Your task to perform on an android device: set the stopwatch Image 0: 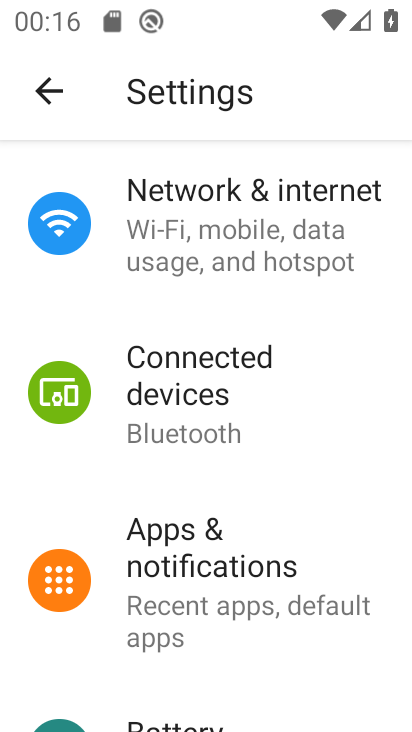
Step 0: press home button
Your task to perform on an android device: set the stopwatch Image 1: 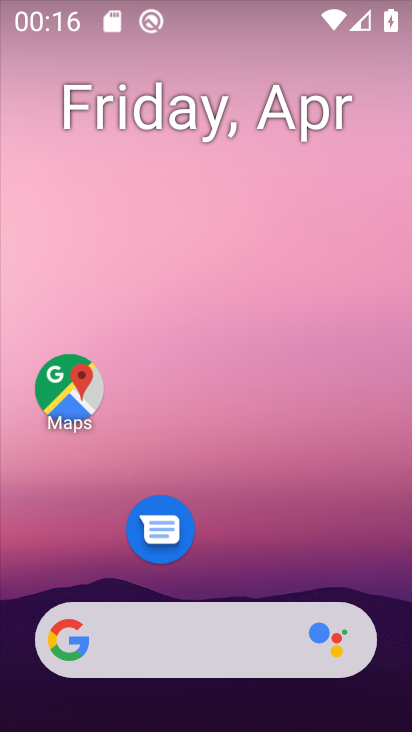
Step 1: drag from (212, 539) to (316, 15)
Your task to perform on an android device: set the stopwatch Image 2: 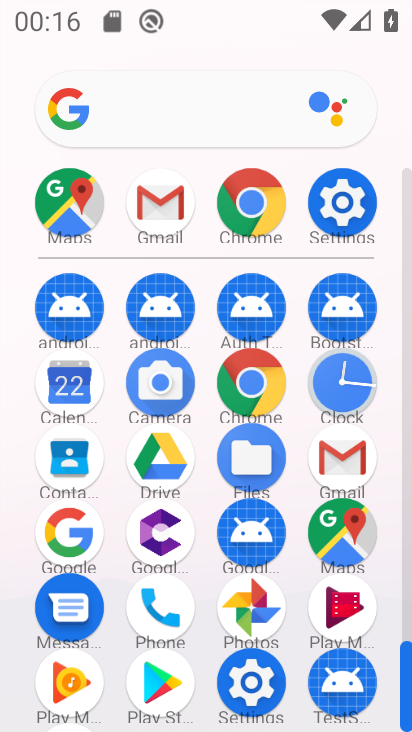
Step 2: click (354, 381)
Your task to perform on an android device: set the stopwatch Image 3: 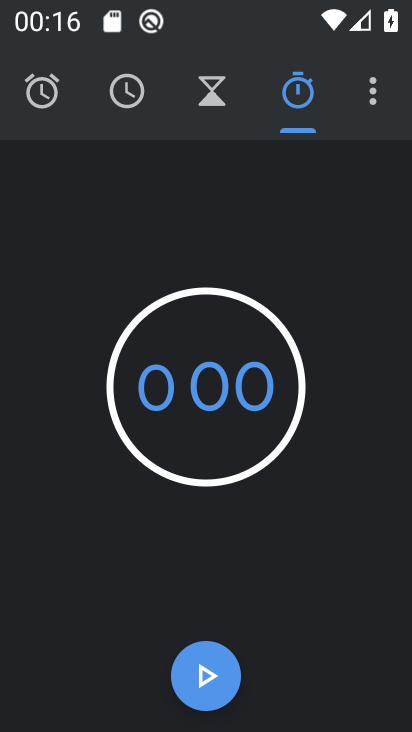
Step 3: click (200, 680)
Your task to perform on an android device: set the stopwatch Image 4: 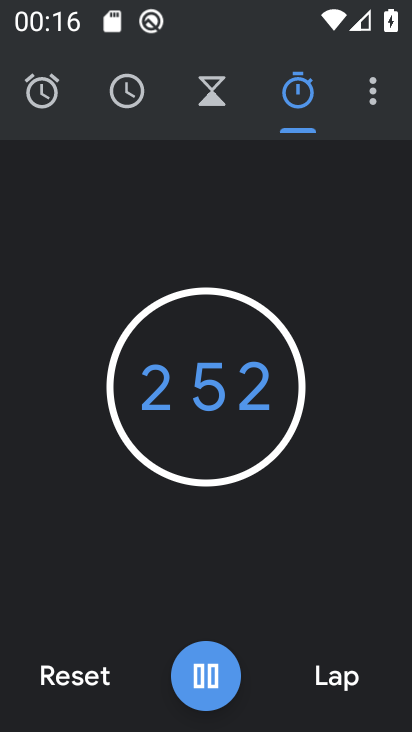
Step 4: task complete